Your task to perform on an android device: Open internet settings Image 0: 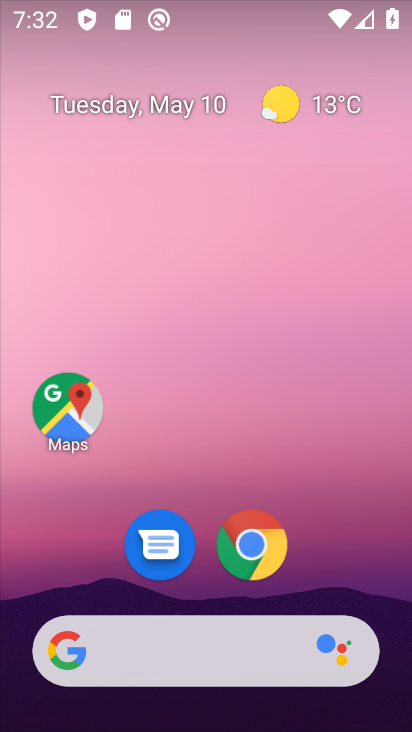
Step 0: drag from (214, 590) to (222, 166)
Your task to perform on an android device: Open internet settings Image 1: 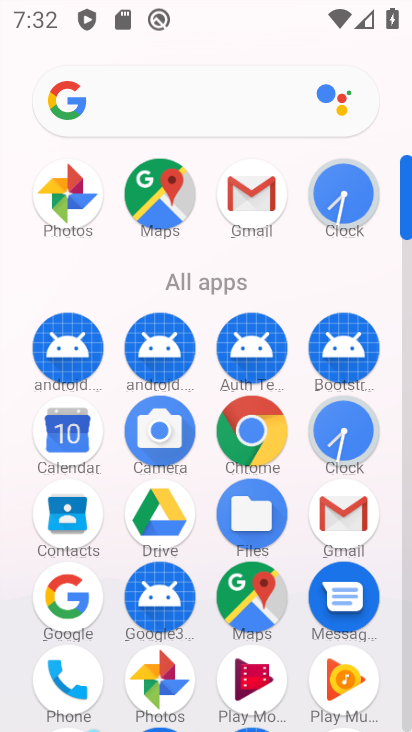
Step 1: drag from (200, 526) to (197, 112)
Your task to perform on an android device: Open internet settings Image 2: 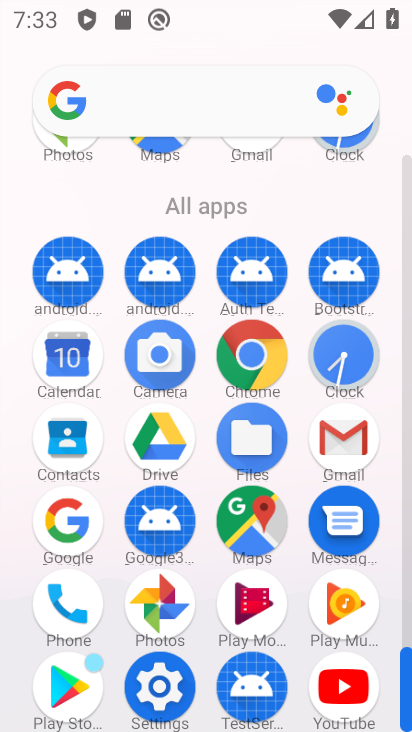
Step 2: click (153, 679)
Your task to perform on an android device: Open internet settings Image 3: 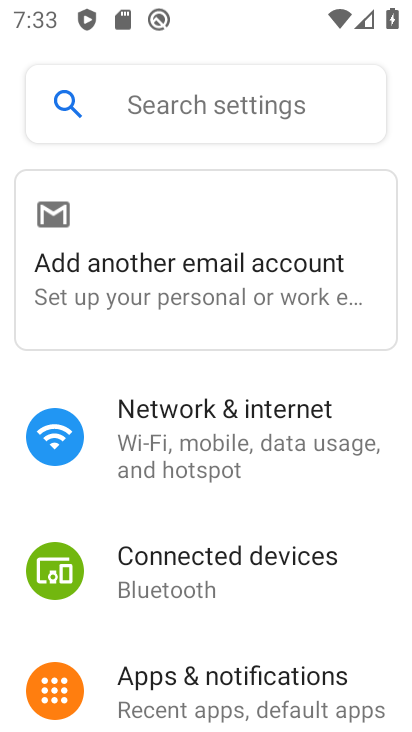
Step 3: click (188, 445)
Your task to perform on an android device: Open internet settings Image 4: 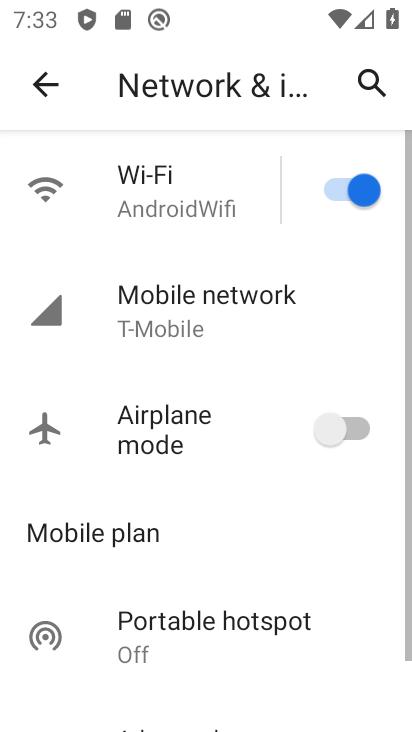
Step 4: drag from (162, 605) to (150, 434)
Your task to perform on an android device: Open internet settings Image 5: 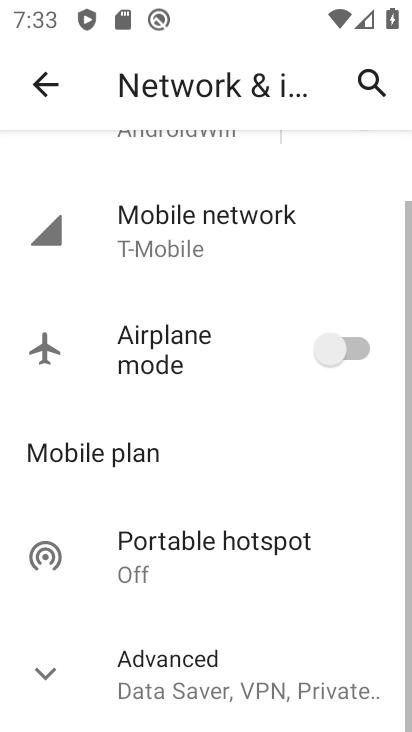
Step 5: click (150, 324)
Your task to perform on an android device: Open internet settings Image 6: 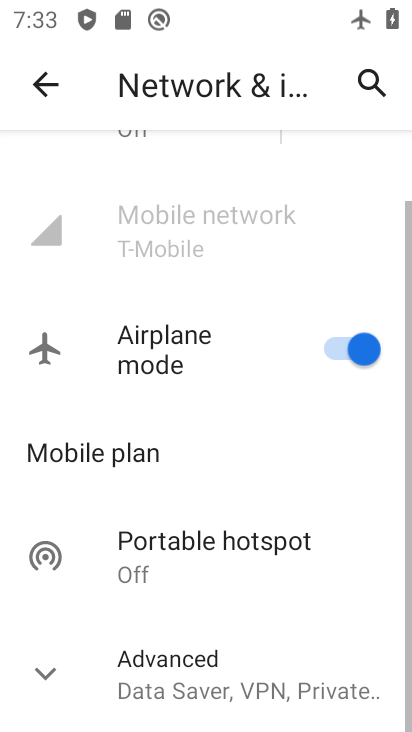
Step 6: click (54, 668)
Your task to perform on an android device: Open internet settings Image 7: 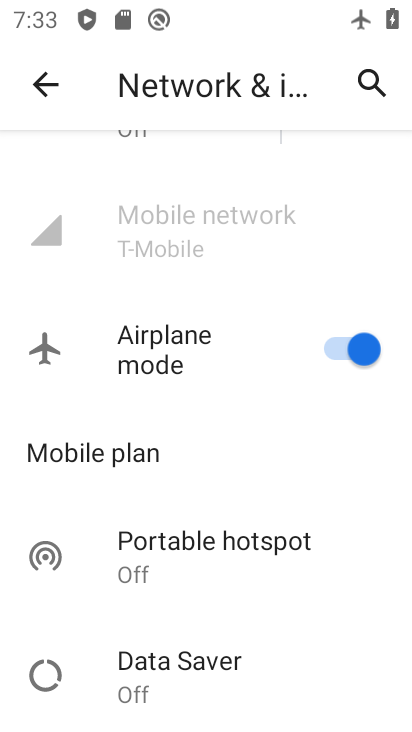
Step 7: task complete